Your task to perform on an android device: Open settings Image 0: 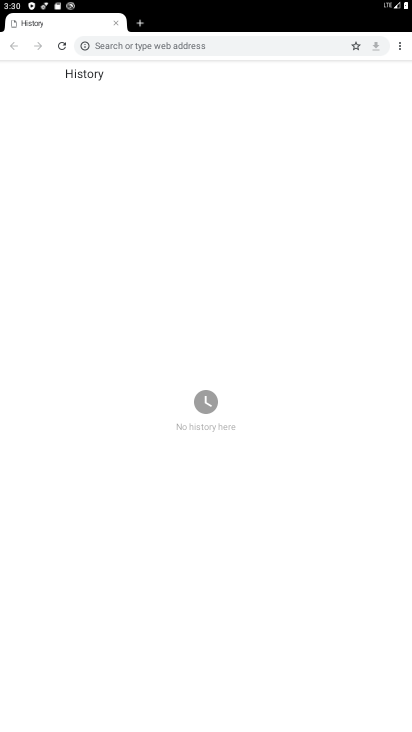
Step 0: press home button
Your task to perform on an android device: Open settings Image 1: 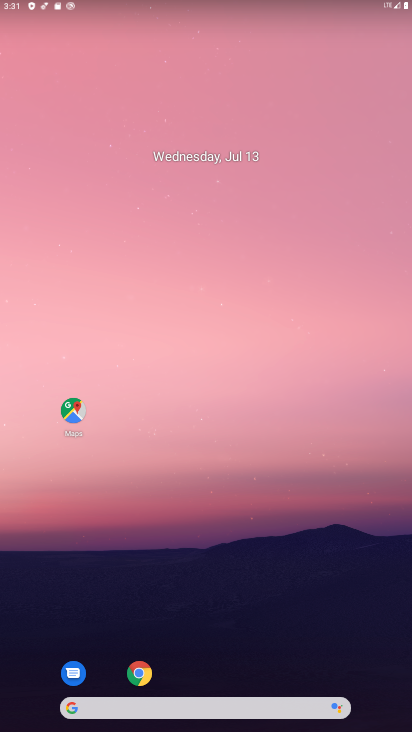
Step 1: drag from (179, 710) to (302, 149)
Your task to perform on an android device: Open settings Image 2: 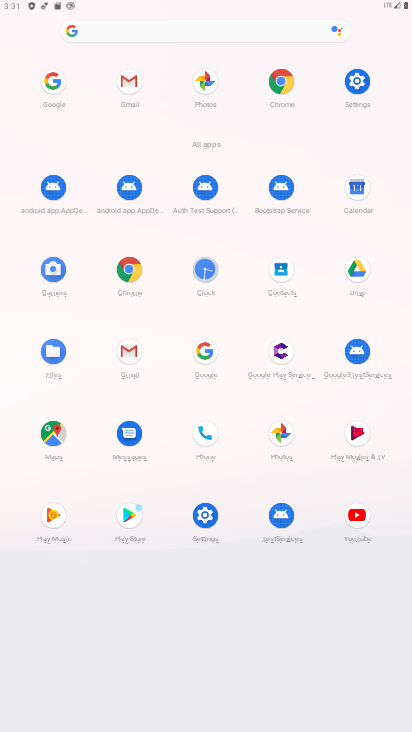
Step 2: click (357, 80)
Your task to perform on an android device: Open settings Image 3: 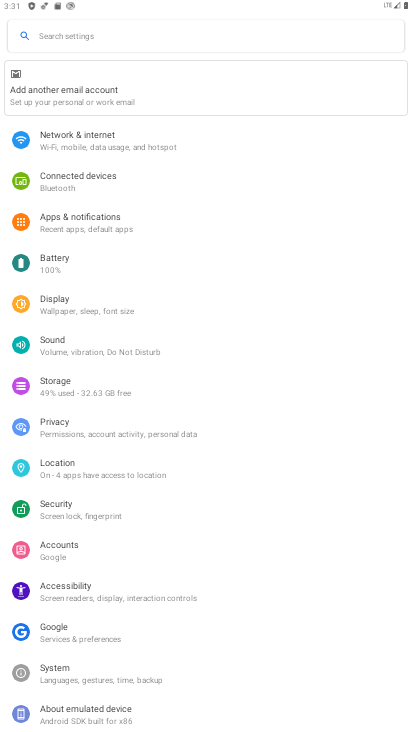
Step 3: task complete